Your task to perform on an android device: find snoozed emails in the gmail app Image 0: 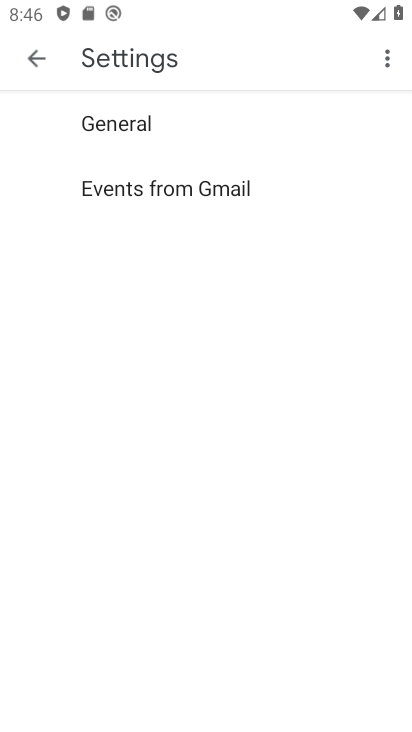
Step 0: press home button
Your task to perform on an android device: find snoozed emails in the gmail app Image 1: 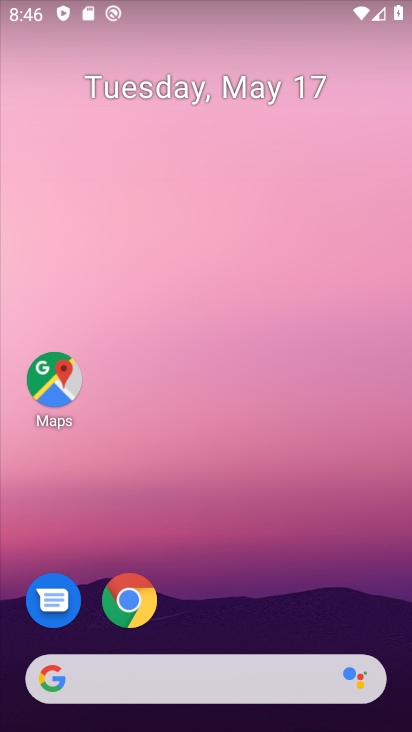
Step 1: drag from (203, 538) to (212, 144)
Your task to perform on an android device: find snoozed emails in the gmail app Image 2: 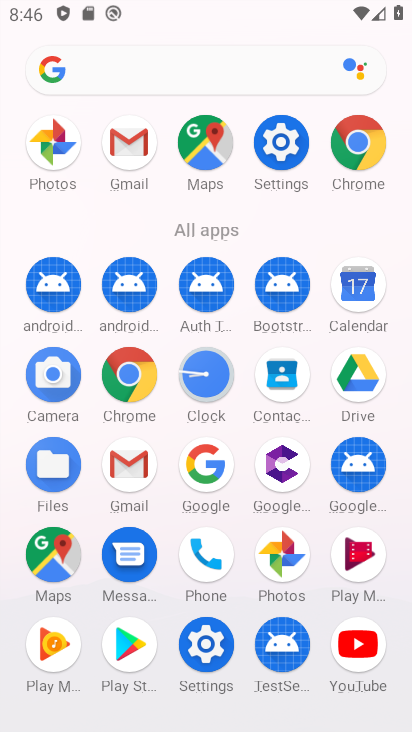
Step 2: click (123, 142)
Your task to perform on an android device: find snoozed emails in the gmail app Image 3: 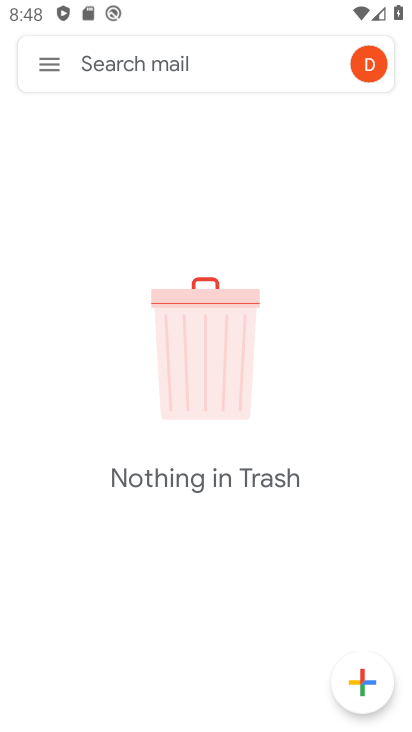
Step 3: click (53, 69)
Your task to perform on an android device: find snoozed emails in the gmail app Image 4: 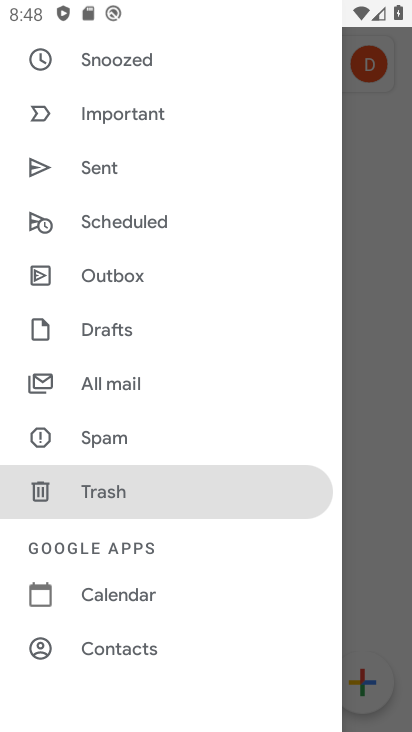
Step 4: click (124, 53)
Your task to perform on an android device: find snoozed emails in the gmail app Image 5: 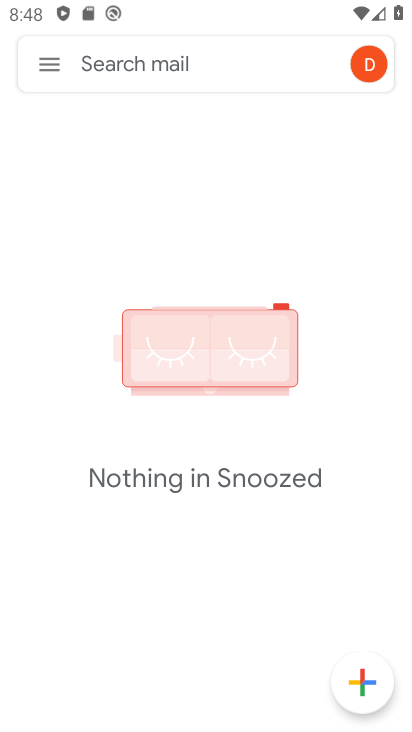
Step 5: task complete